Your task to perform on an android device: turn off translation in the chrome app Image 0: 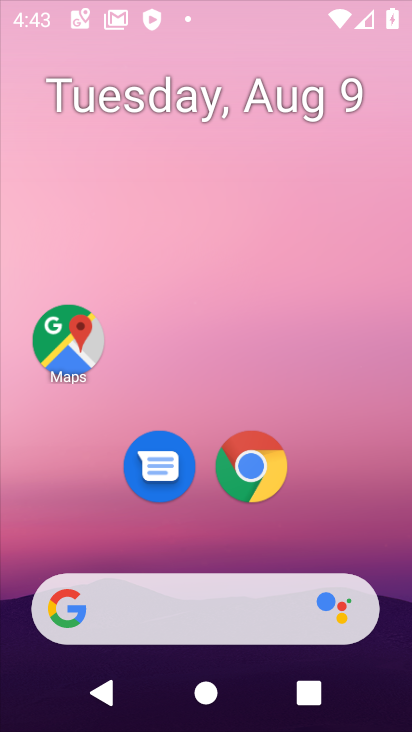
Step 0: drag from (242, 549) to (281, 358)
Your task to perform on an android device: turn off translation in the chrome app Image 1: 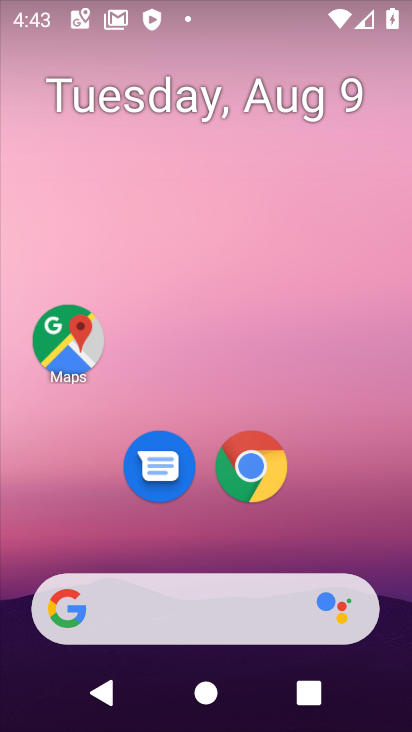
Step 1: drag from (204, 558) to (258, 59)
Your task to perform on an android device: turn off translation in the chrome app Image 2: 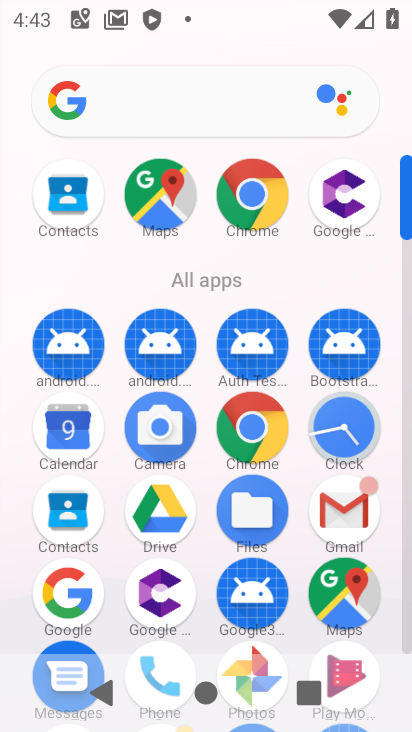
Step 2: click (250, 201)
Your task to perform on an android device: turn off translation in the chrome app Image 3: 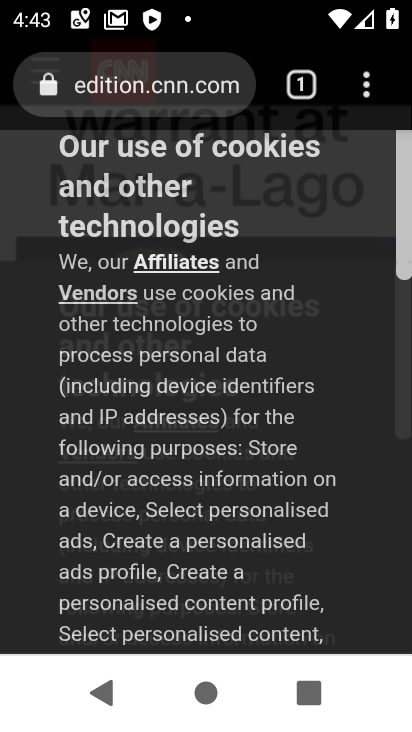
Step 3: click (234, 184)
Your task to perform on an android device: turn off translation in the chrome app Image 4: 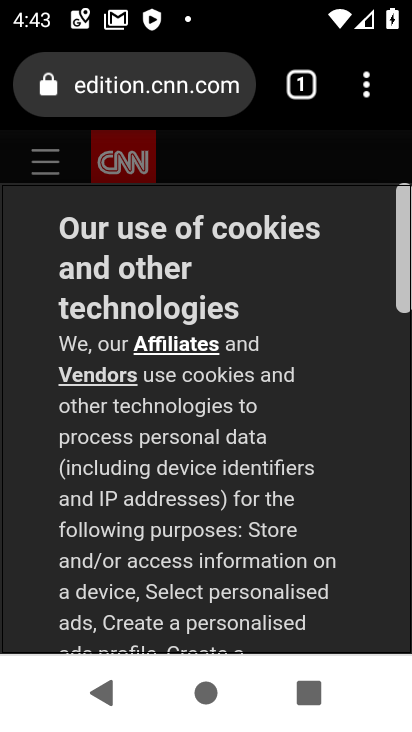
Step 4: drag from (221, 443) to (234, 289)
Your task to perform on an android device: turn off translation in the chrome app Image 5: 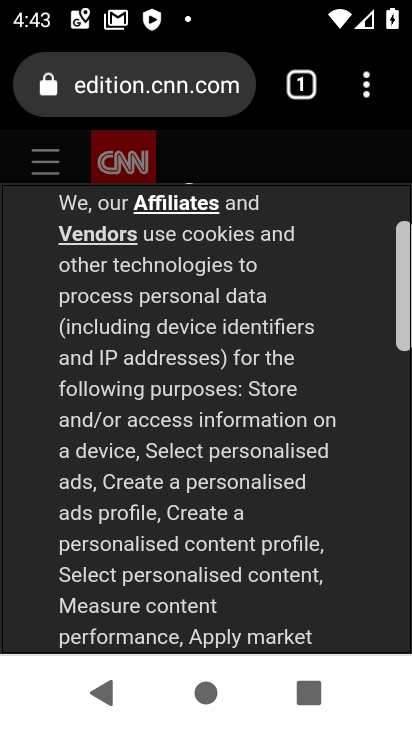
Step 5: drag from (371, 72) to (68, 505)
Your task to perform on an android device: turn off translation in the chrome app Image 6: 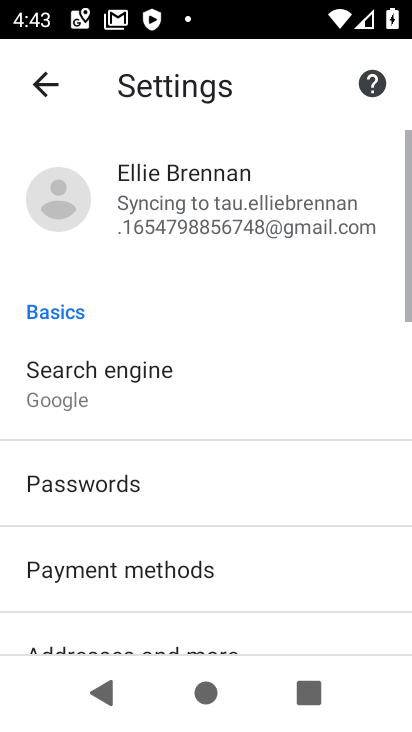
Step 6: drag from (207, 560) to (239, 164)
Your task to perform on an android device: turn off translation in the chrome app Image 7: 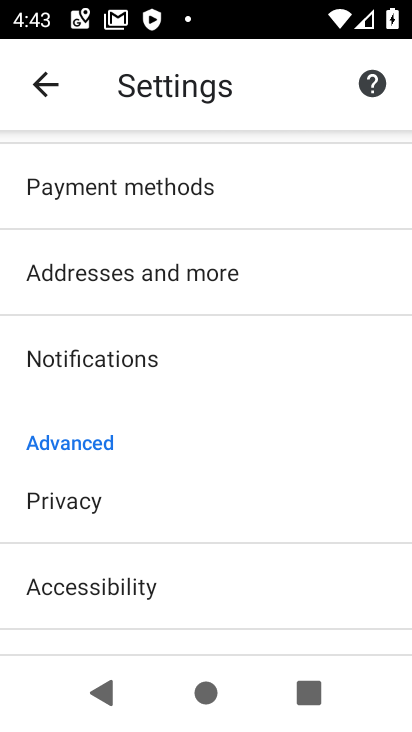
Step 7: drag from (176, 621) to (236, 261)
Your task to perform on an android device: turn off translation in the chrome app Image 8: 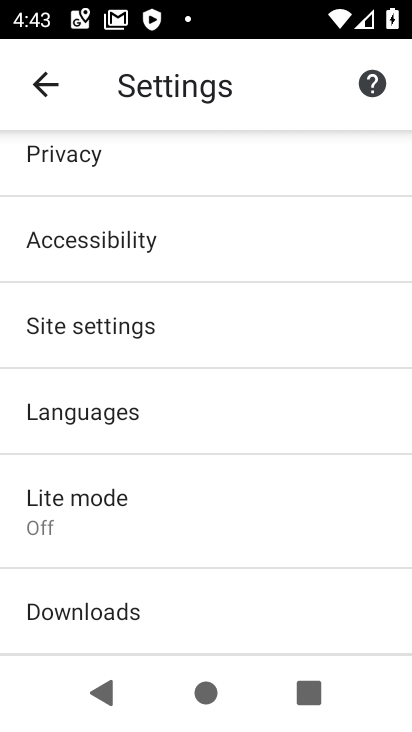
Step 8: drag from (191, 584) to (273, 269)
Your task to perform on an android device: turn off translation in the chrome app Image 9: 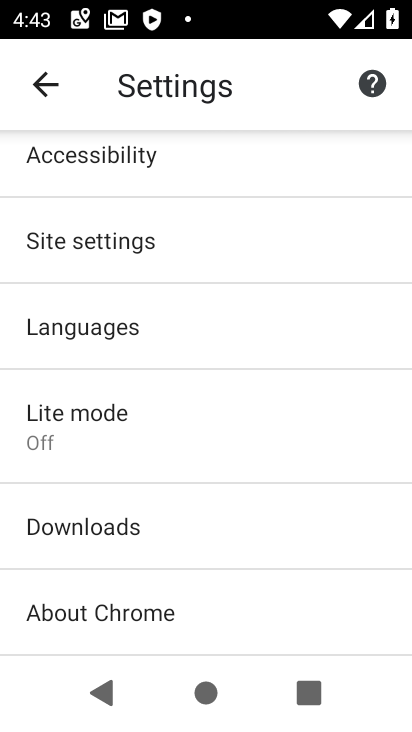
Step 9: click (163, 325)
Your task to perform on an android device: turn off translation in the chrome app Image 10: 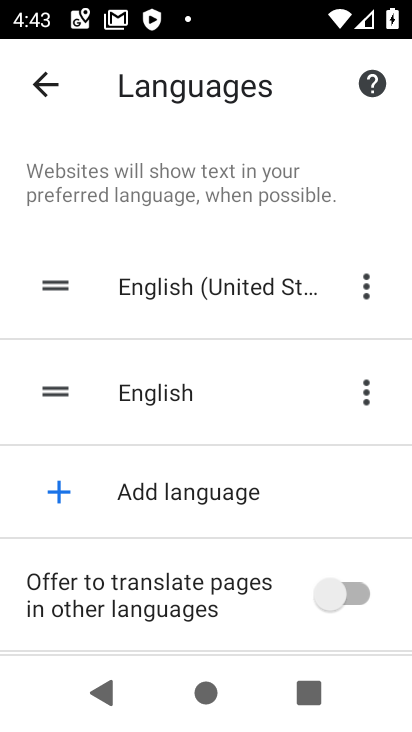
Step 10: task complete